Your task to perform on an android device: change the clock style Image 0: 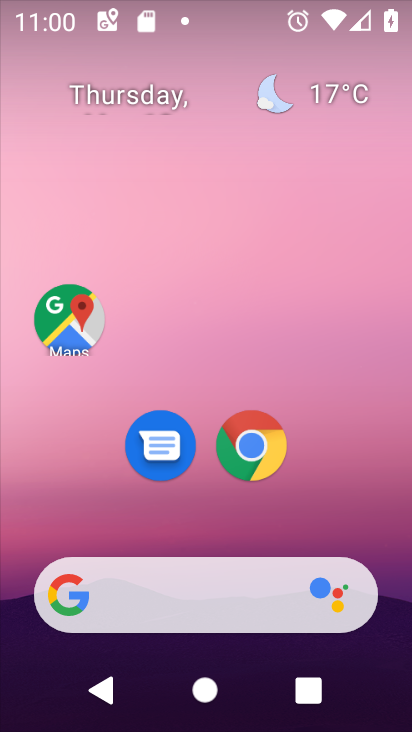
Step 0: drag from (214, 535) to (270, 145)
Your task to perform on an android device: change the clock style Image 1: 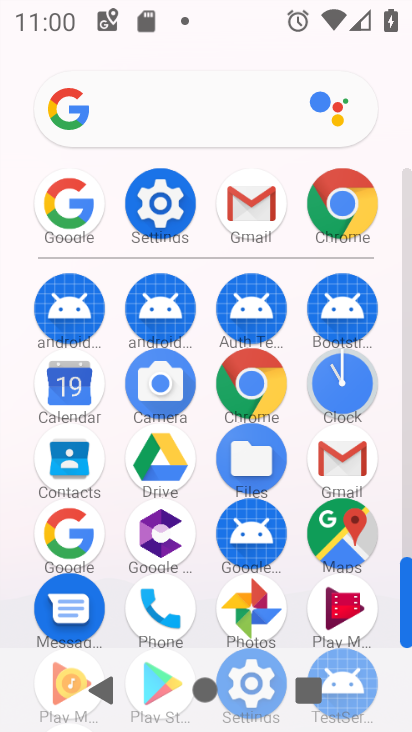
Step 1: click (337, 402)
Your task to perform on an android device: change the clock style Image 2: 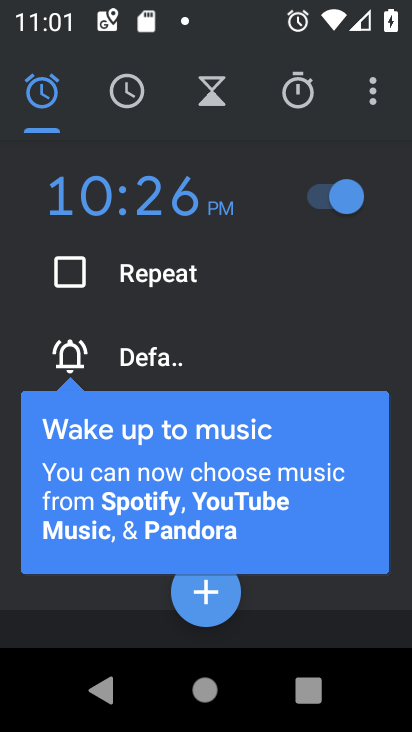
Step 2: click (374, 111)
Your task to perform on an android device: change the clock style Image 3: 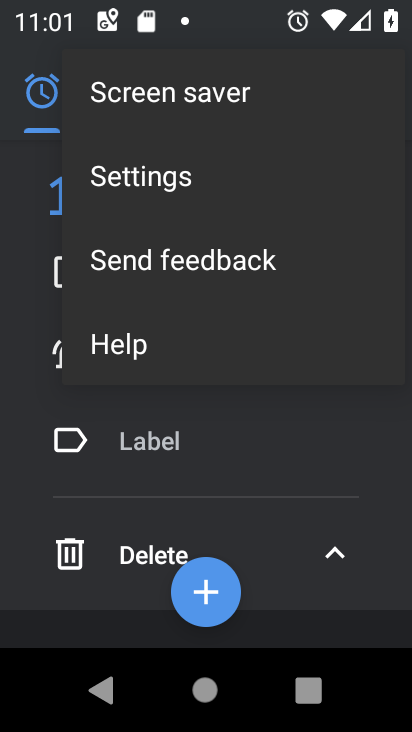
Step 3: click (164, 196)
Your task to perform on an android device: change the clock style Image 4: 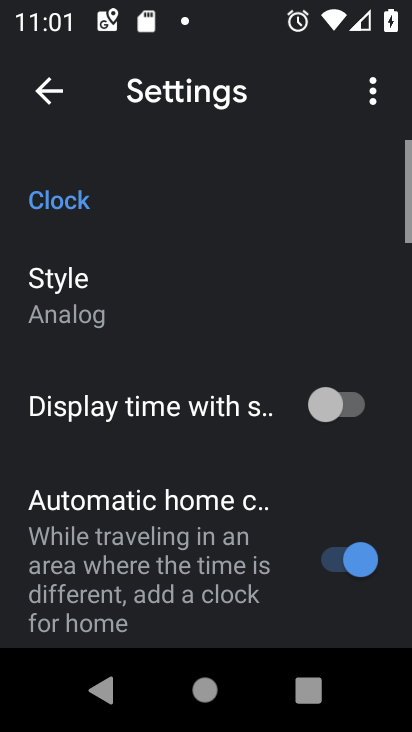
Step 4: click (114, 330)
Your task to perform on an android device: change the clock style Image 5: 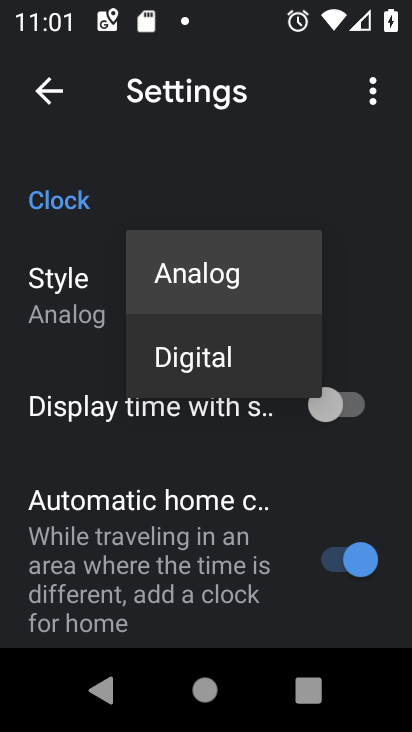
Step 5: click (183, 368)
Your task to perform on an android device: change the clock style Image 6: 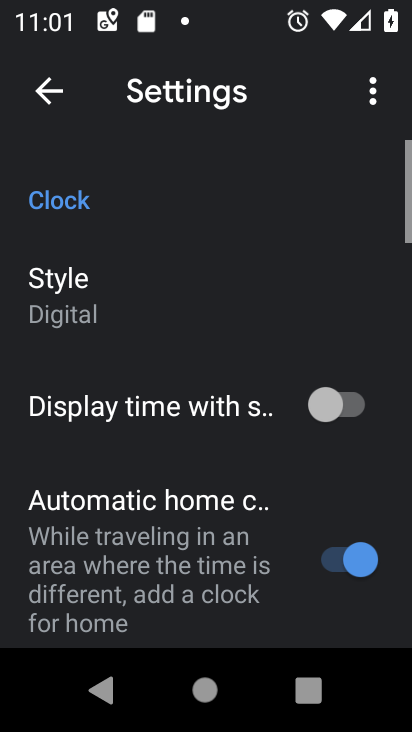
Step 6: task complete